Your task to perform on an android device: Check the news Image 0: 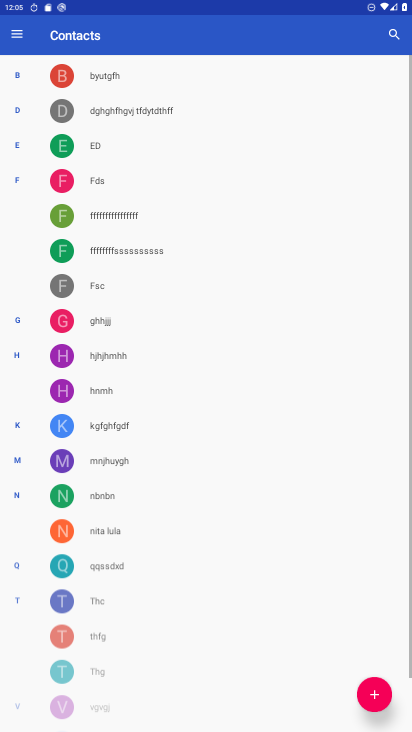
Step 0: drag from (363, 612) to (283, 134)
Your task to perform on an android device: Check the news Image 1: 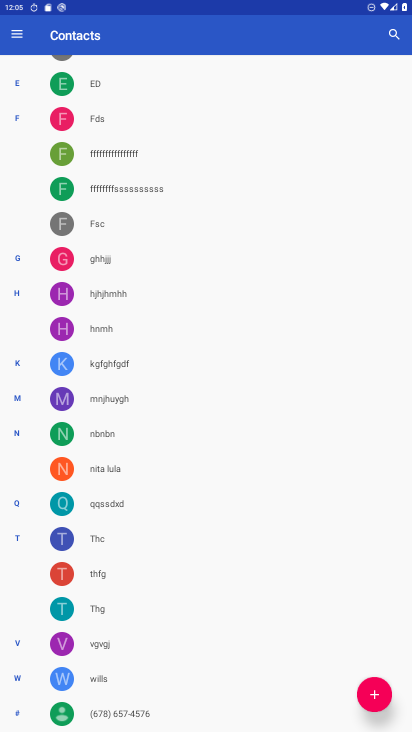
Step 1: press home button
Your task to perform on an android device: Check the news Image 2: 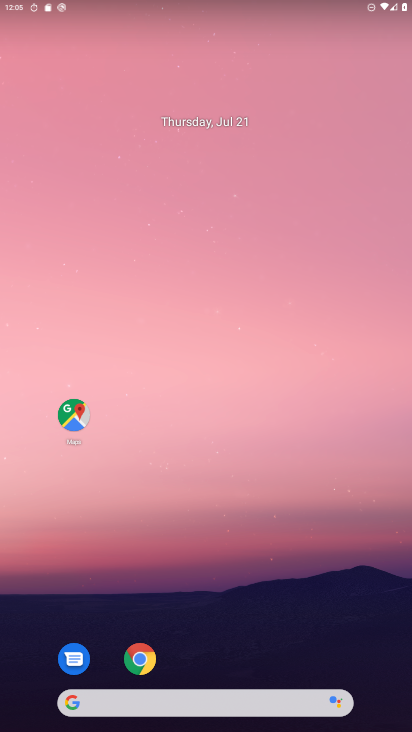
Step 2: drag from (277, 638) to (186, 80)
Your task to perform on an android device: Check the news Image 3: 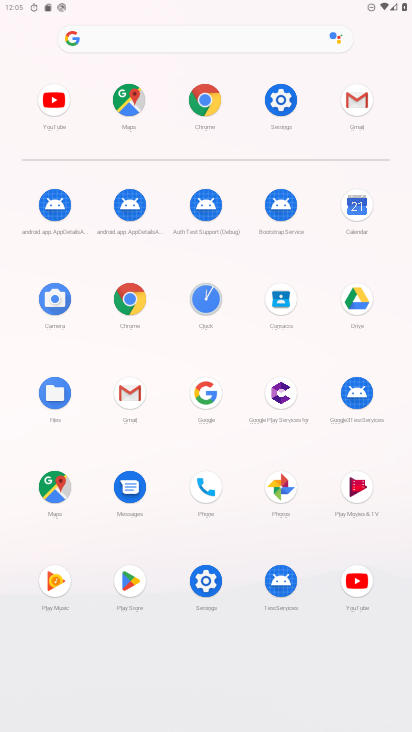
Step 3: click (202, 101)
Your task to perform on an android device: Check the news Image 4: 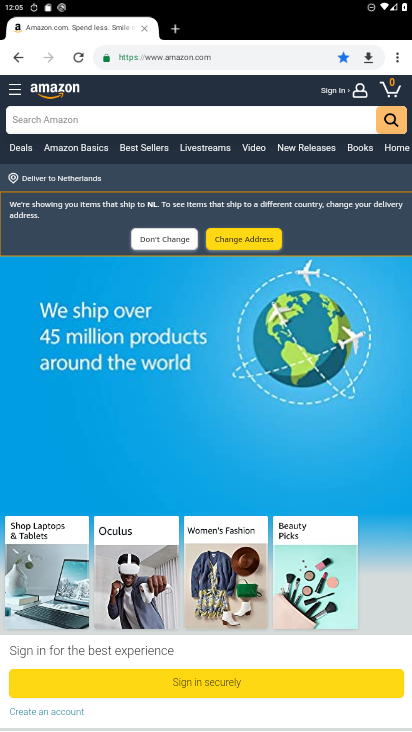
Step 4: click (158, 51)
Your task to perform on an android device: Check the news Image 5: 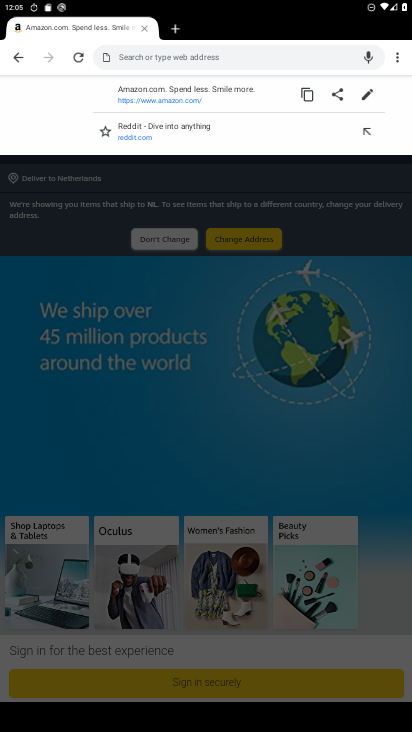
Step 5: type "news"
Your task to perform on an android device: Check the news Image 6: 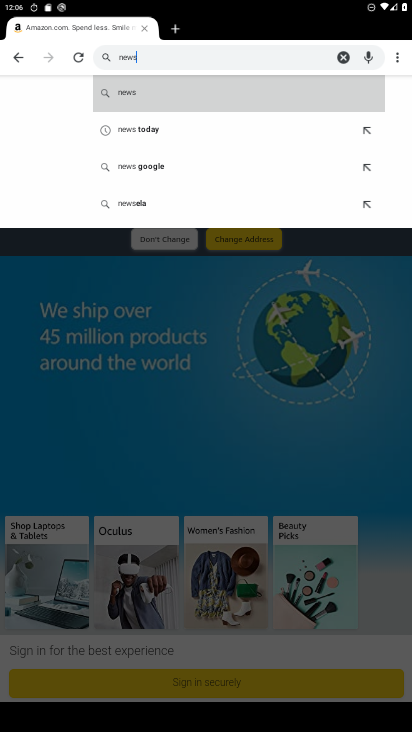
Step 6: click (125, 92)
Your task to perform on an android device: Check the news Image 7: 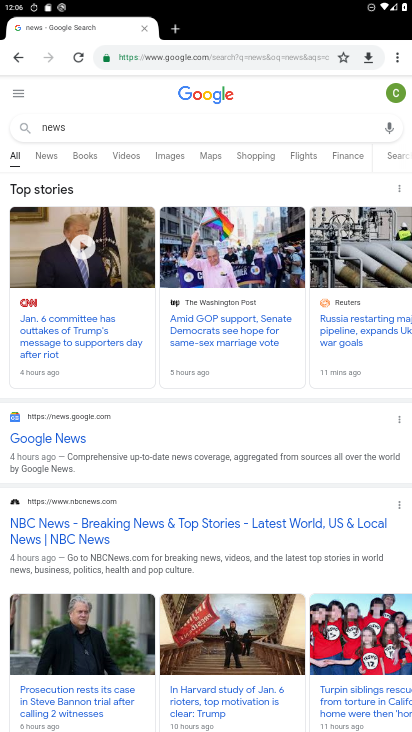
Step 7: click (57, 443)
Your task to perform on an android device: Check the news Image 8: 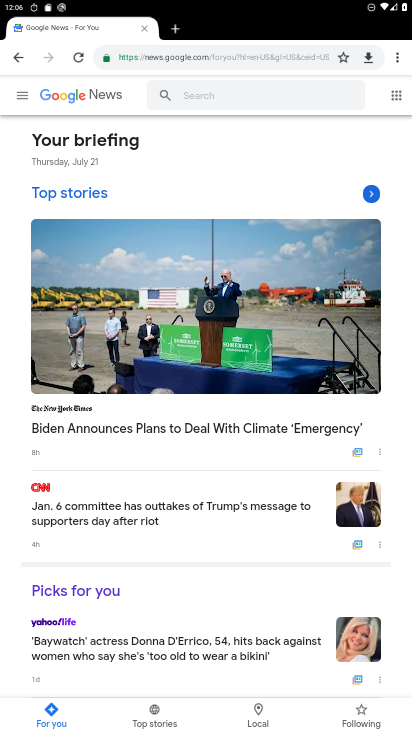
Step 8: task complete